Your task to perform on an android device: Go to Reddit.com Image 0: 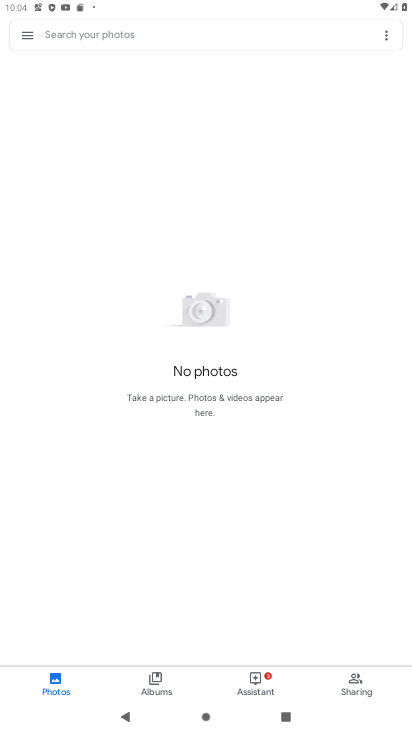
Step 0: press home button
Your task to perform on an android device: Go to Reddit.com Image 1: 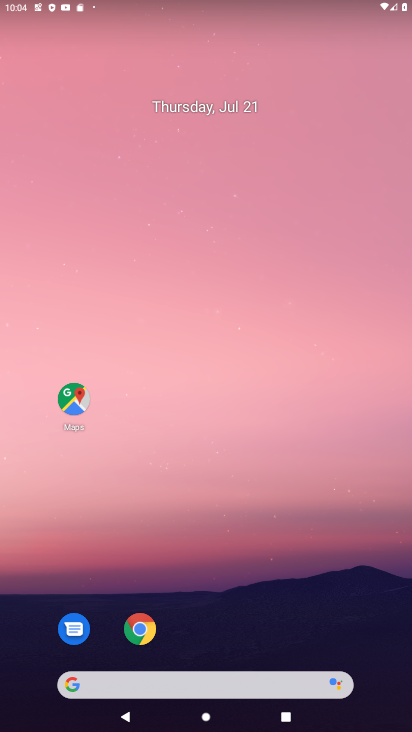
Step 1: click (198, 694)
Your task to perform on an android device: Go to Reddit.com Image 2: 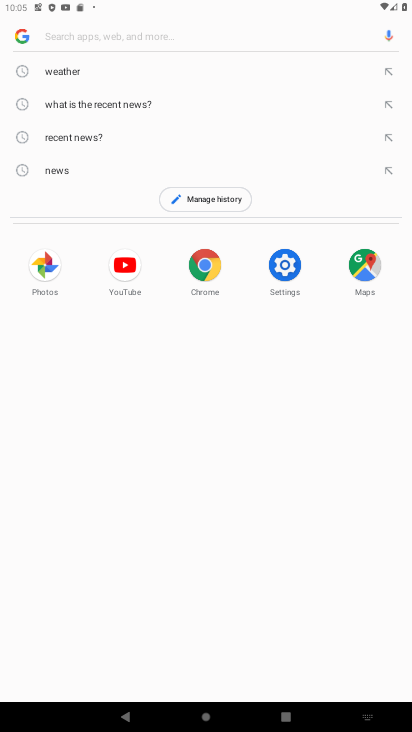
Step 2: type "reddit"
Your task to perform on an android device: Go to Reddit.com Image 3: 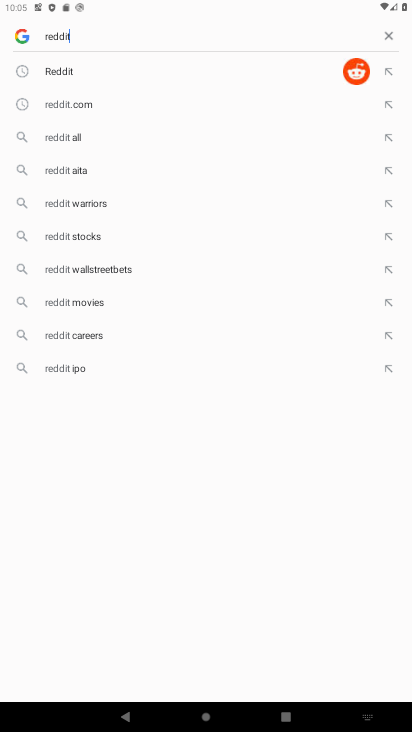
Step 3: click (24, 69)
Your task to perform on an android device: Go to Reddit.com Image 4: 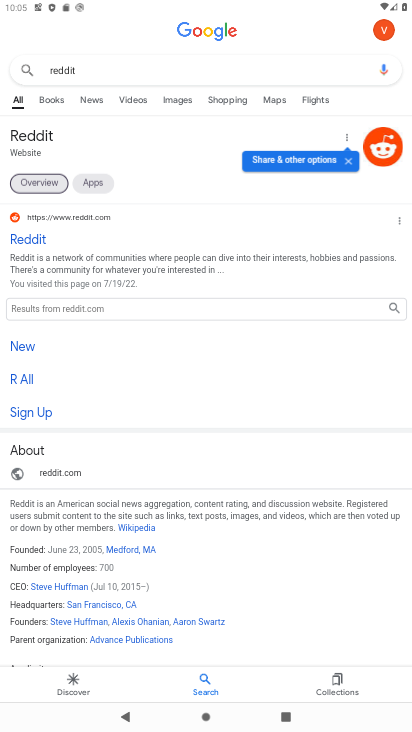
Step 4: click (48, 241)
Your task to perform on an android device: Go to Reddit.com Image 5: 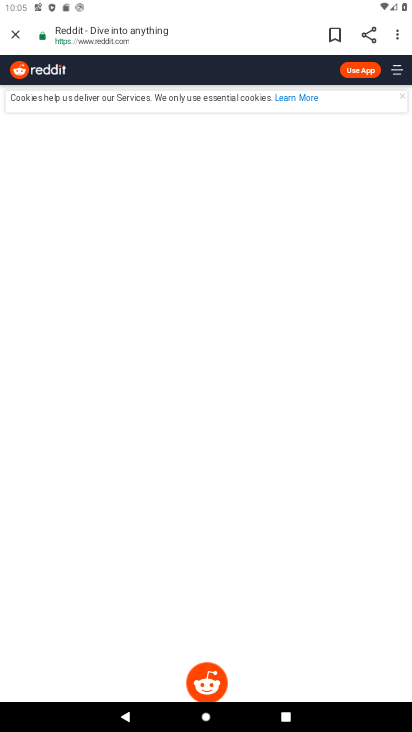
Step 5: task complete